Your task to perform on an android device: Set the phone to "Do not disturb". Image 0: 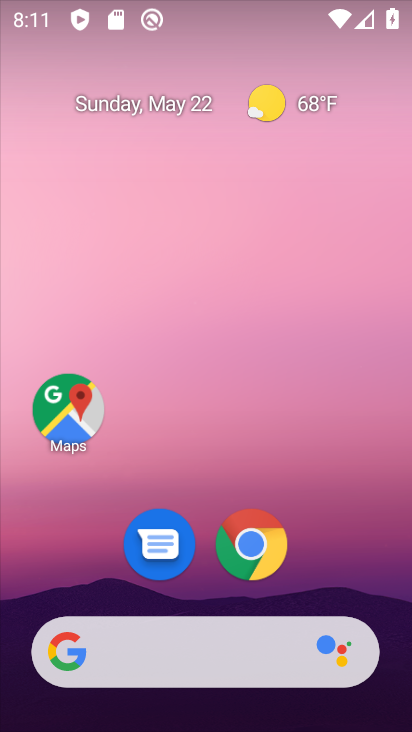
Step 0: drag from (403, 694) to (405, 263)
Your task to perform on an android device: Set the phone to "Do not disturb". Image 1: 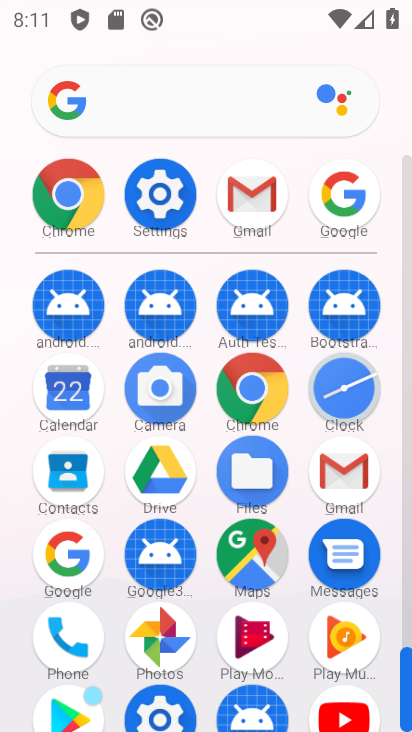
Step 1: click (353, 251)
Your task to perform on an android device: Set the phone to "Do not disturb". Image 2: 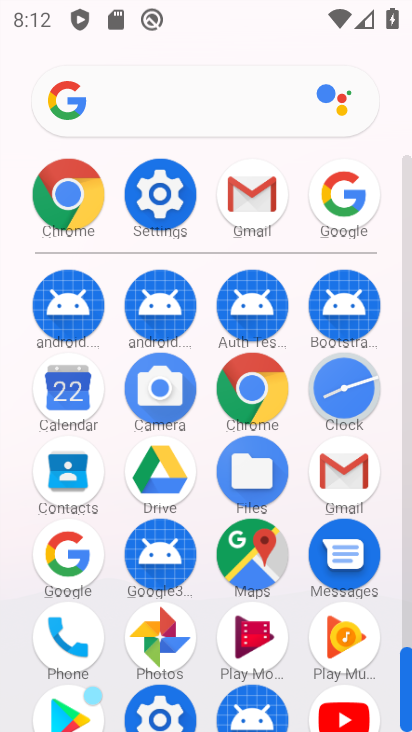
Step 2: click (153, 187)
Your task to perform on an android device: Set the phone to "Do not disturb". Image 3: 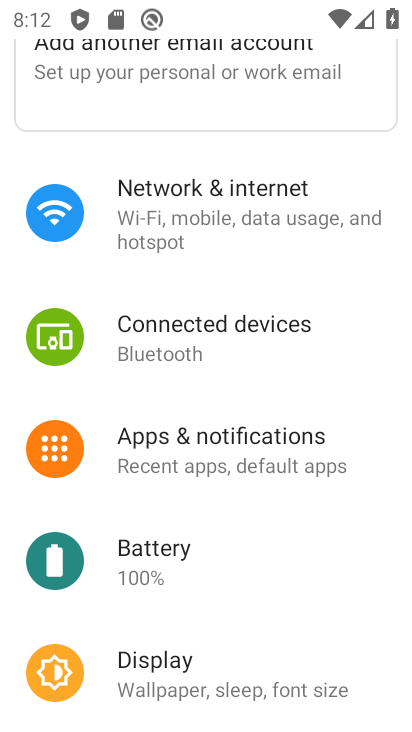
Step 3: drag from (371, 489) to (401, 327)
Your task to perform on an android device: Set the phone to "Do not disturb". Image 4: 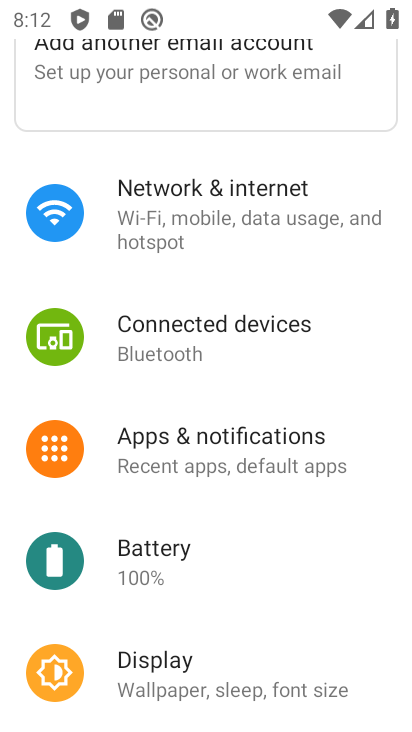
Step 4: drag from (385, 681) to (403, 351)
Your task to perform on an android device: Set the phone to "Do not disturb". Image 5: 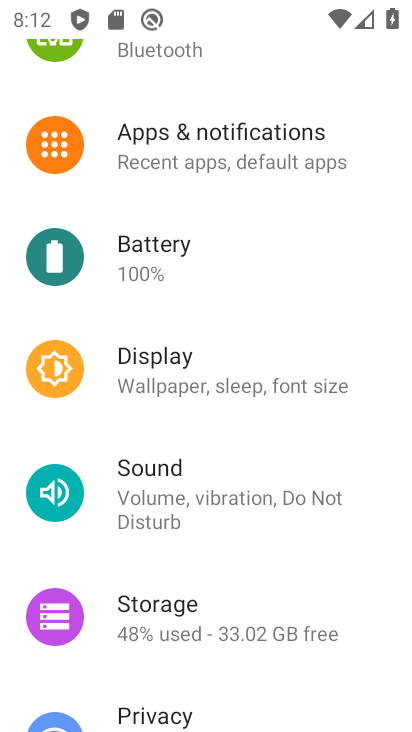
Step 5: click (166, 466)
Your task to perform on an android device: Set the phone to "Do not disturb". Image 6: 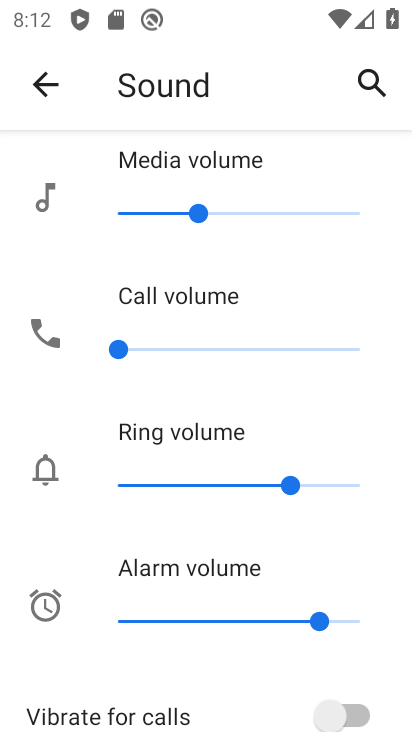
Step 6: drag from (381, 681) to (391, 209)
Your task to perform on an android device: Set the phone to "Do not disturb". Image 7: 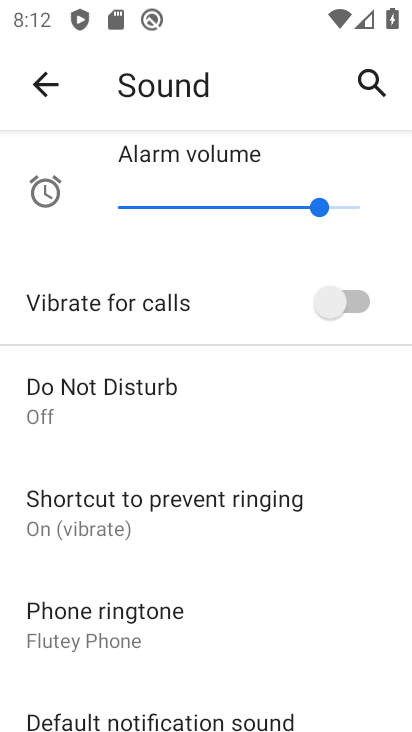
Step 7: drag from (327, 665) to (369, 380)
Your task to perform on an android device: Set the phone to "Do not disturb". Image 8: 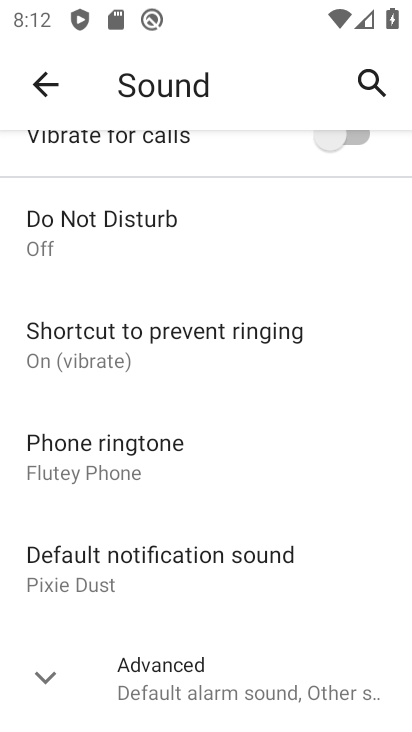
Step 8: click (92, 228)
Your task to perform on an android device: Set the phone to "Do not disturb". Image 9: 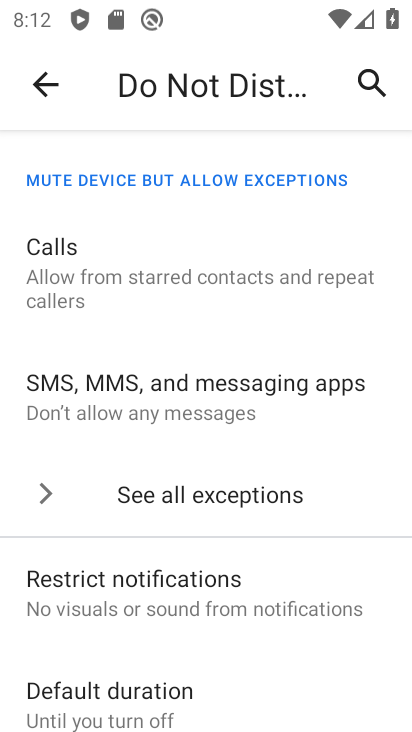
Step 9: drag from (317, 699) to (358, 371)
Your task to perform on an android device: Set the phone to "Do not disturb". Image 10: 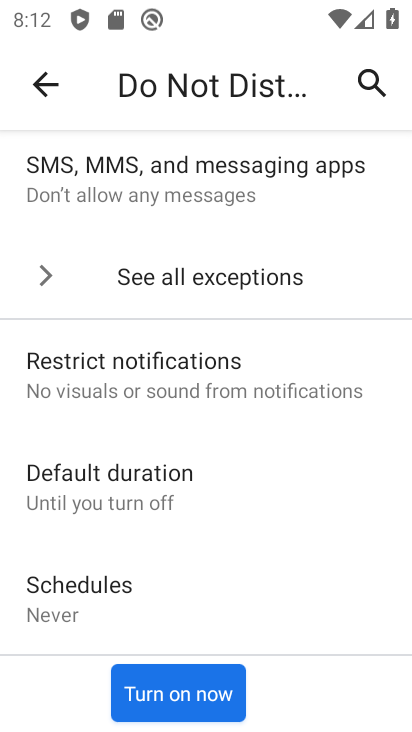
Step 10: click (153, 681)
Your task to perform on an android device: Set the phone to "Do not disturb". Image 11: 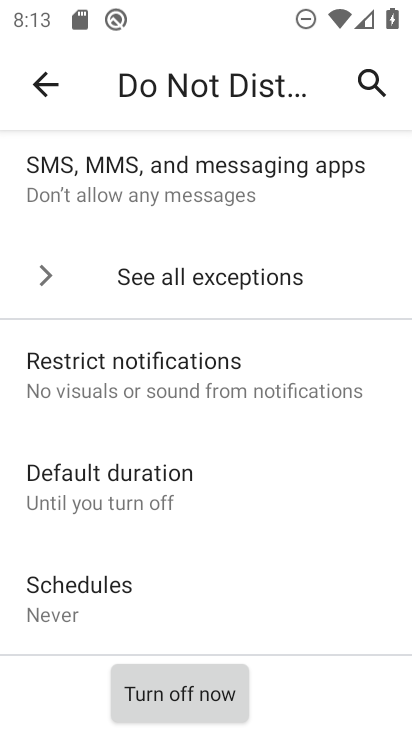
Step 11: task complete